Your task to perform on an android device: What's the weather going to be this weekend? Image 0: 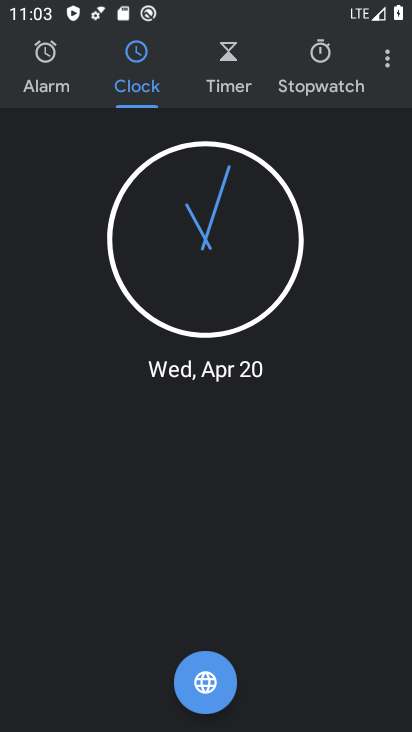
Step 0: press home button
Your task to perform on an android device: What's the weather going to be this weekend? Image 1: 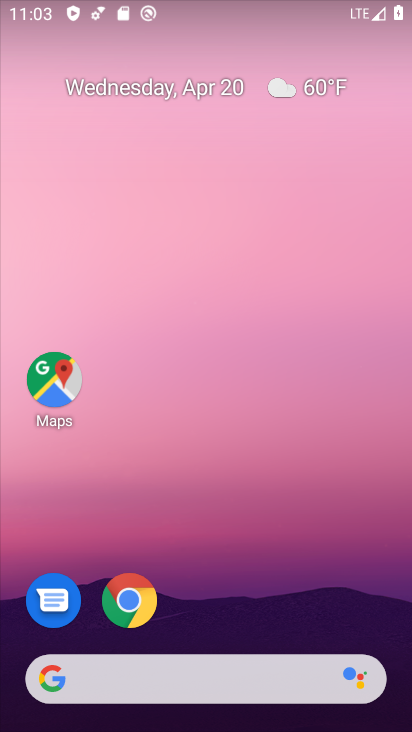
Step 1: drag from (242, 612) to (245, 183)
Your task to perform on an android device: What's the weather going to be this weekend? Image 2: 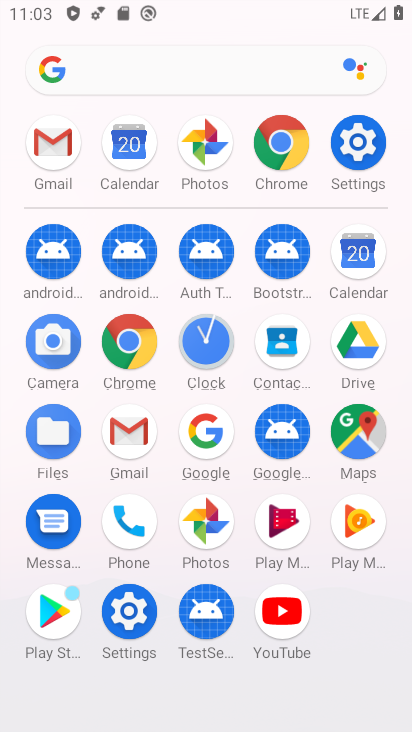
Step 2: click (131, 355)
Your task to perform on an android device: What's the weather going to be this weekend? Image 3: 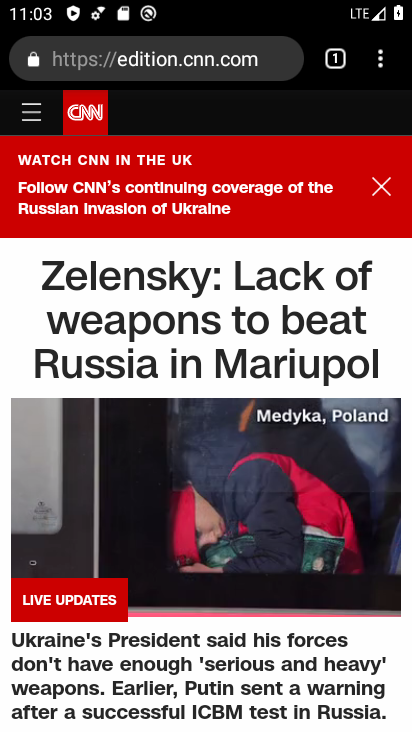
Step 3: click (227, 52)
Your task to perform on an android device: What's the weather going to be this weekend? Image 4: 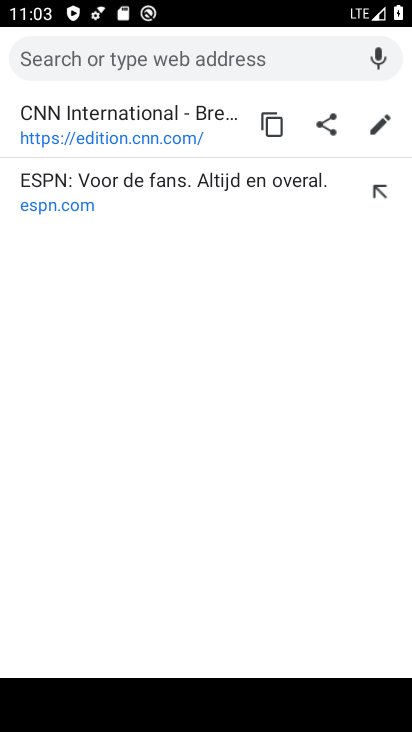
Step 4: type "weather"
Your task to perform on an android device: What's the weather going to be this weekend? Image 5: 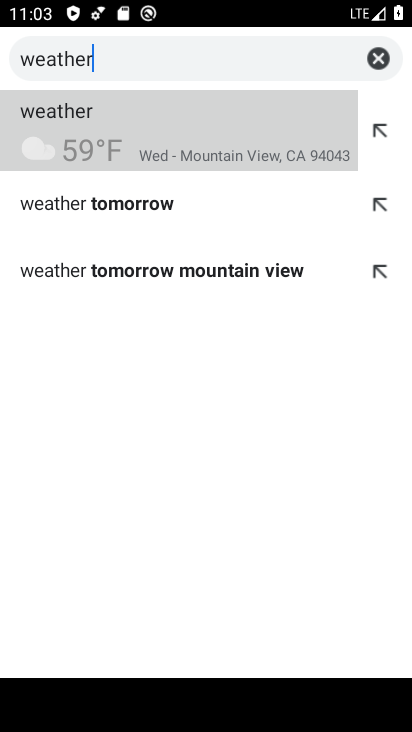
Step 5: click (129, 145)
Your task to perform on an android device: What's the weather going to be this weekend? Image 6: 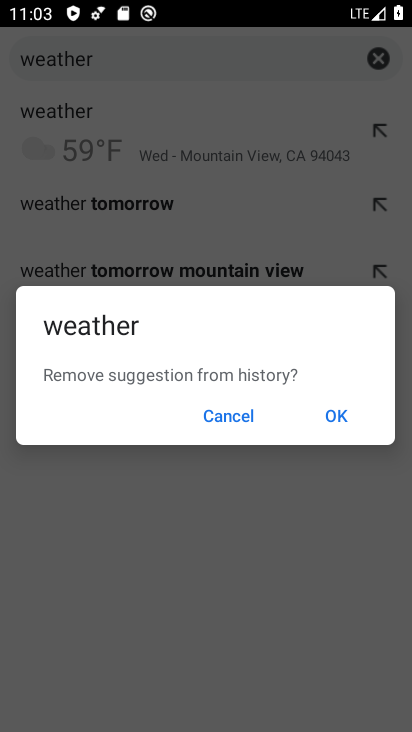
Step 6: click (157, 147)
Your task to perform on an android device: What's the weather going to be this weekend? Image 7: 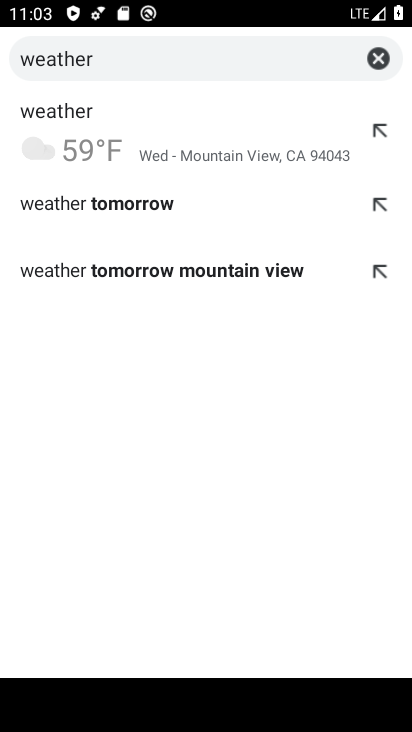
Step 7: click (72, 138)
Your task to perform on an android device: What's the weather going to be this weekend? Image 8: 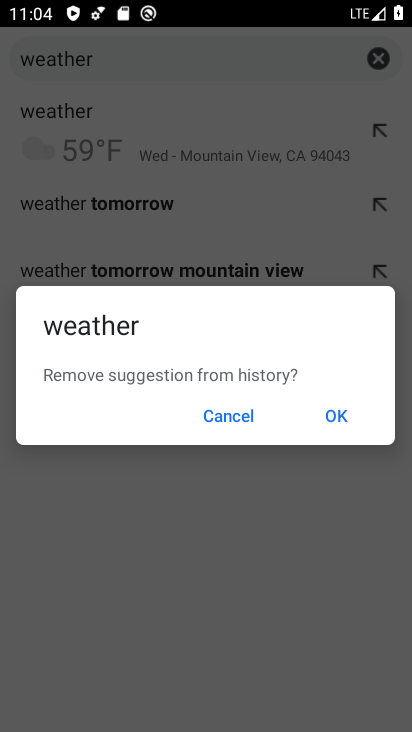
Step 8: click (230, 409)
Your task to perform on an android device: What's the weather going to be this weekend? Image 9: 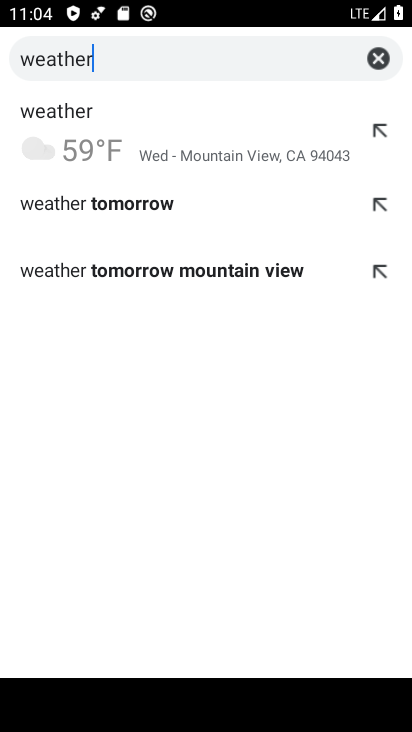
Step 9: click (49, 119)
Your task to perform on an android device: What's the weather going to be this weekend? Image 10: 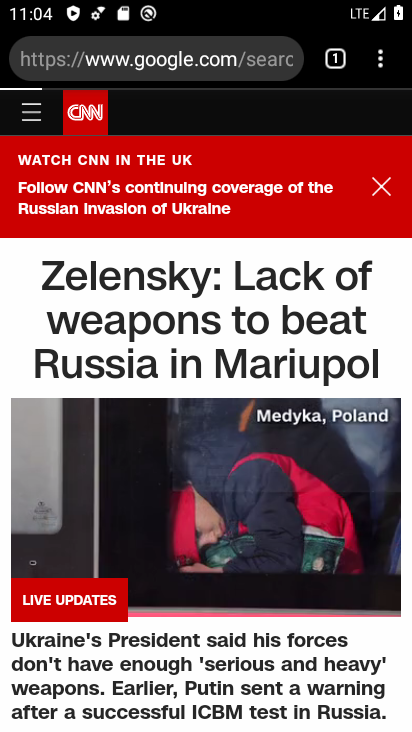
Step 10: click (53, 154)
Your task to perform on an android device: What's the weather going to be this weekend? Image 11: 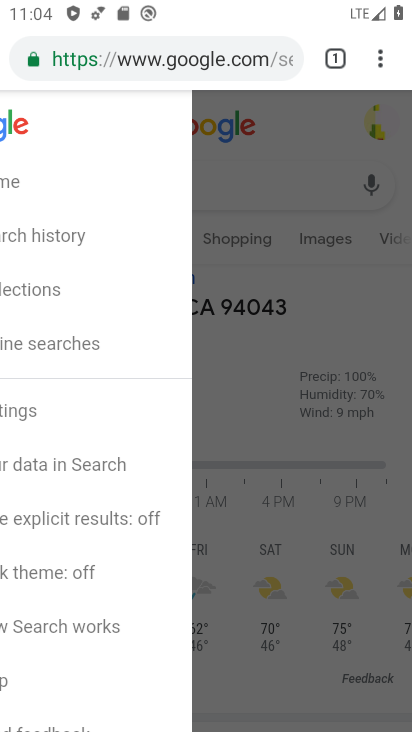
Step 11: click (156, 155)
Your task to perform on an android device: What's the weather going to be this weekend? Image 12: 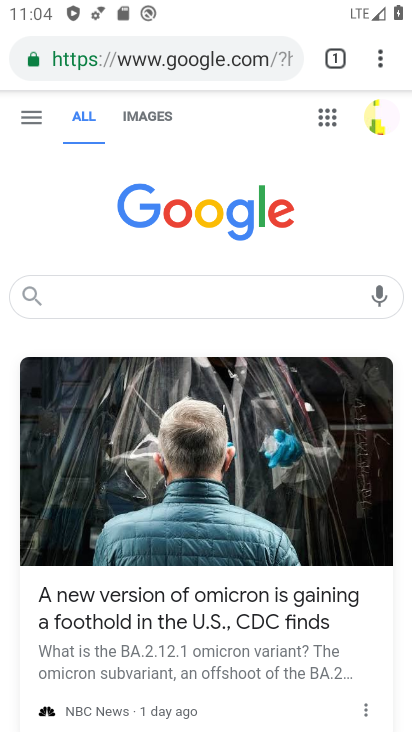
Step 12: click (240, 299)
Your task to perform on an android device: What's the weather going to be this weekend? Image 13: 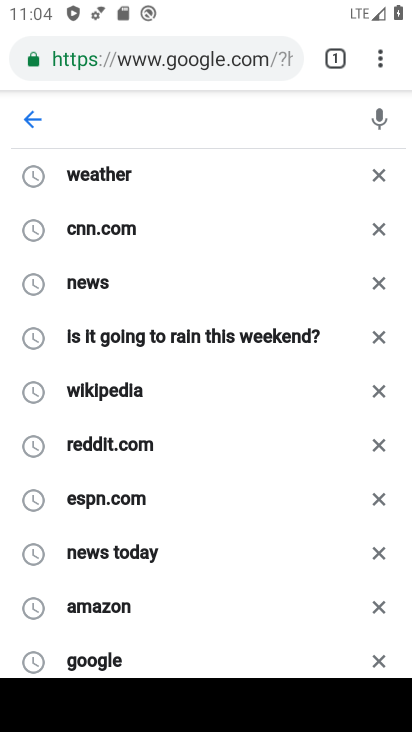
Step 13: click (106, 171)
Your task to perform on an android device: What's the weather going to be this weekend? Image 14: 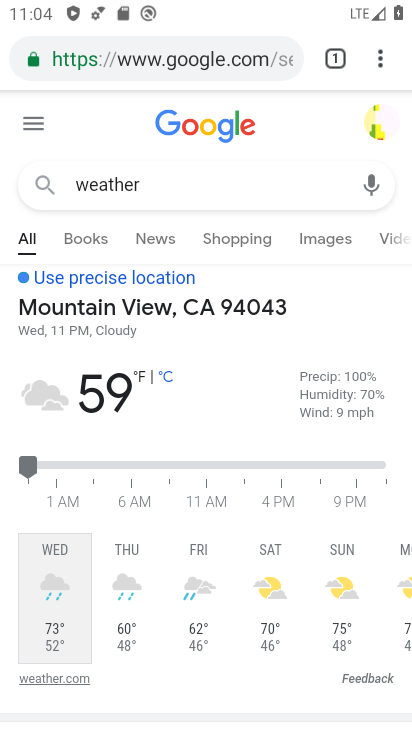
Step 14: task complete